Your task to perform on an android device: turn off notifications in google photos Image 0: 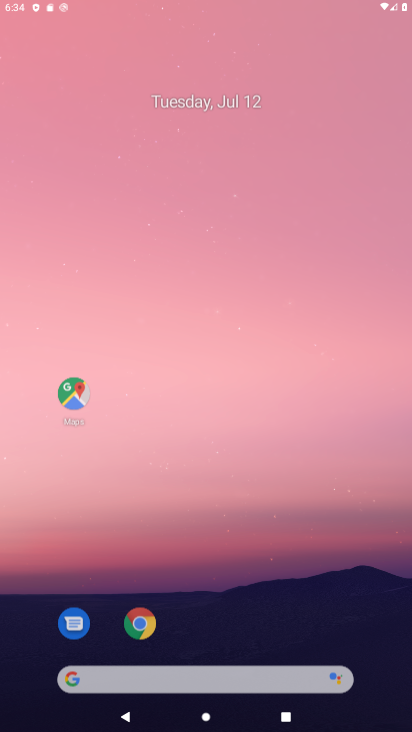
Step 0: drag from (253, 477) to (170, 175)
Your task to perform on an android device: turn off notifications in google photos Image 1: 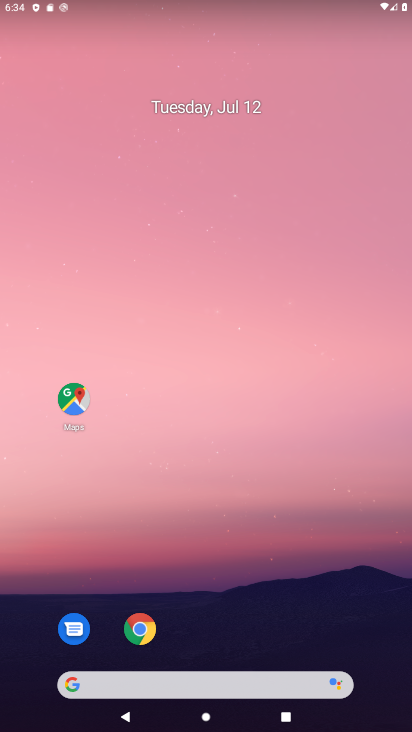
Step 1: drag from (206, 548) to (116, 73)
Your task to perform on an android device: turn off notifications in google photos Image 2: 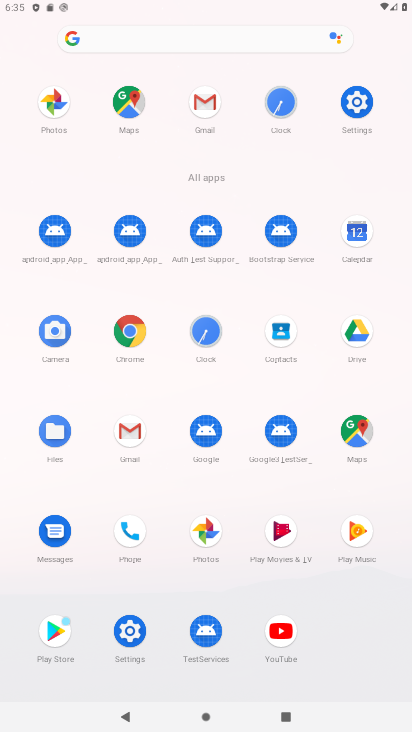
Step 2: click (201, 536)
Your task to perform on an android device: turn off notifications in google photos Image 3: 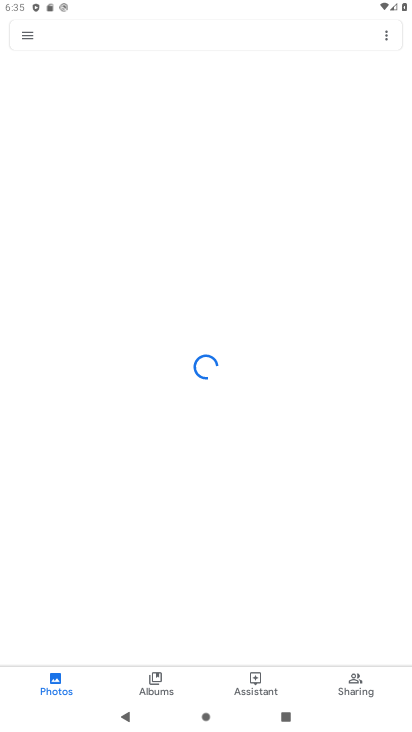
Step 3: click (28, 38)
Your task to perform on an android device: turn off notifications in google photos Image 4: 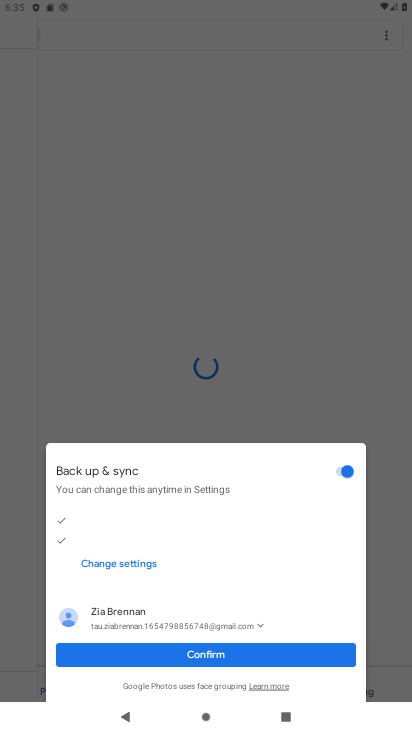
Step 4: click (214, 653)
Your task to perform on an android device: turn off notifications in google photos Image 5: 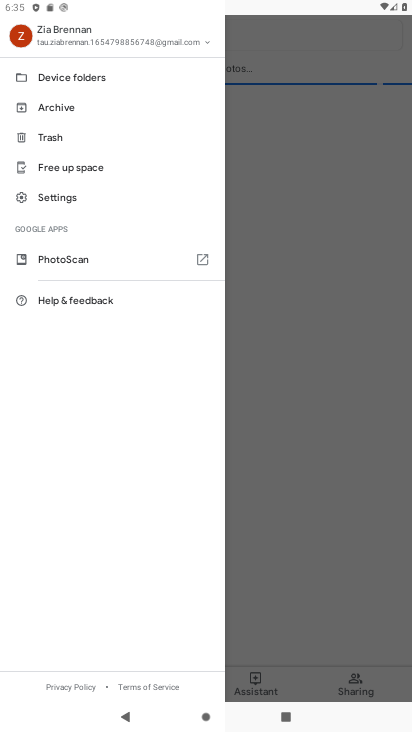
Step 5: click (47, 197)
Your task to perform on an android device: turn off notifications in google photos Image 6: 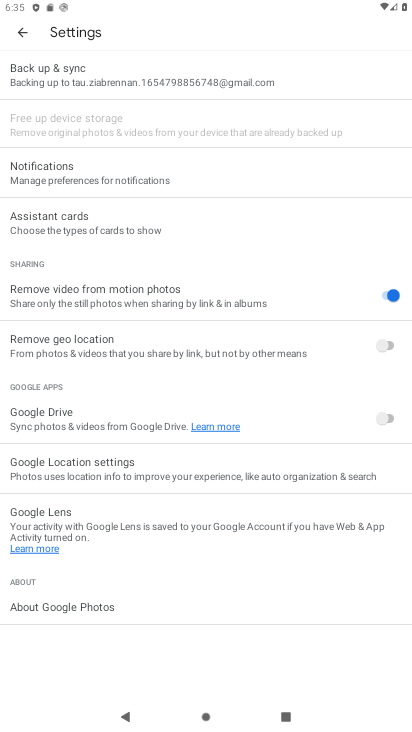
Step 6: click (76, 168)
Your task to perform on an android device: turn off notifications in google photos Image 7: 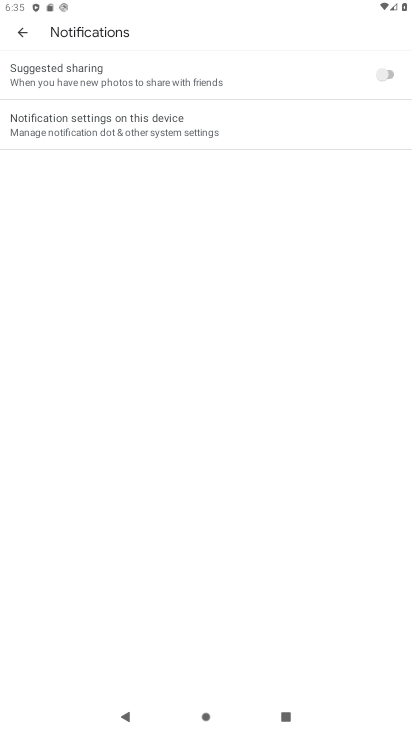
Step 7: task complete